Your task to perform on an android device: Go to settings Image 0: 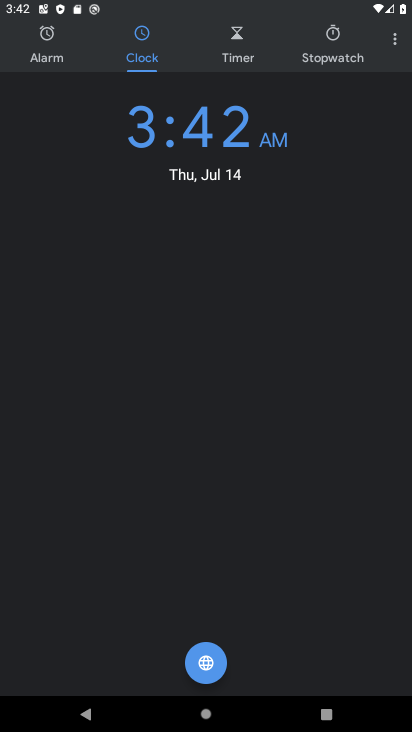
Step 0: press home button
Your task to perform on an android device: Go to settings Image 1: 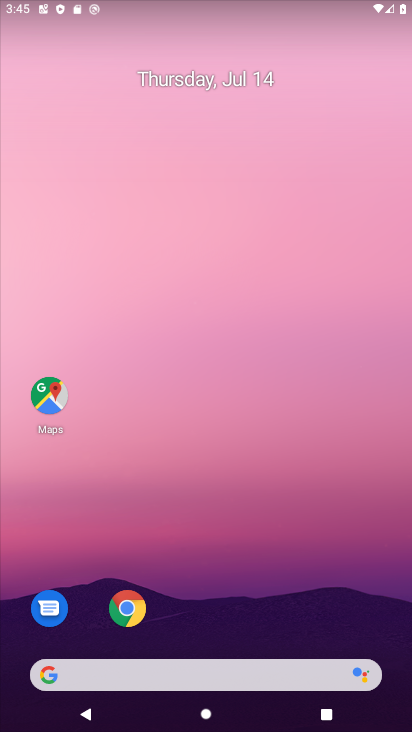
Step 1: drag from (15, 665) to (211, 200)
Your task to perform on an android device: Go to settings Image 2: 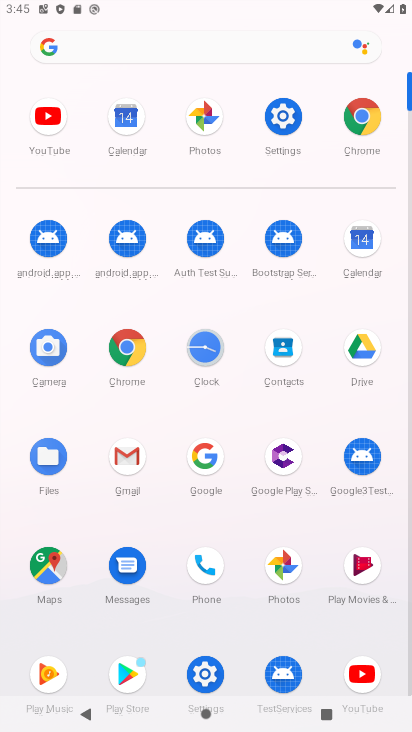
Step 2: click (204, 672)
Your task to perform on an android device: Go to settings Image 3: 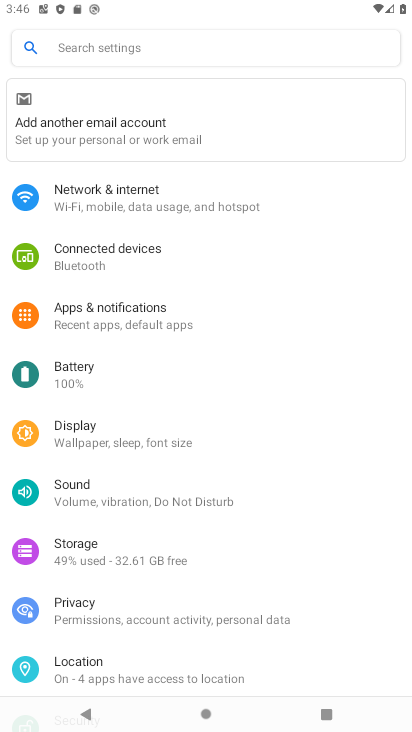
Step 3: task complete